Your task to perform on an android device: Open location settings Image 0: 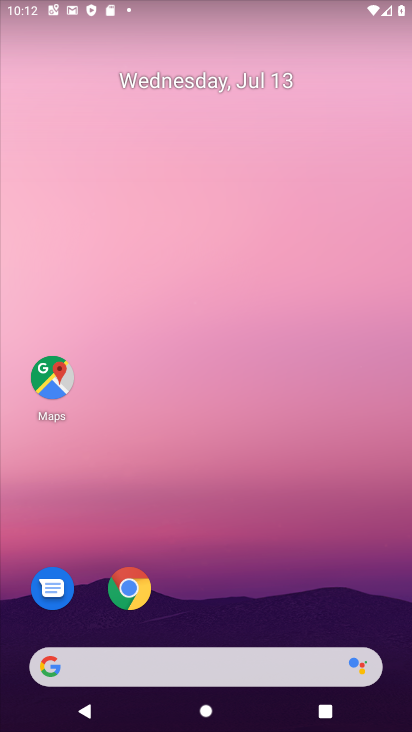
Step 0: drag from (215, 610) to (218, 214)
Your task to perform on an android device: Open location settings Image 1: 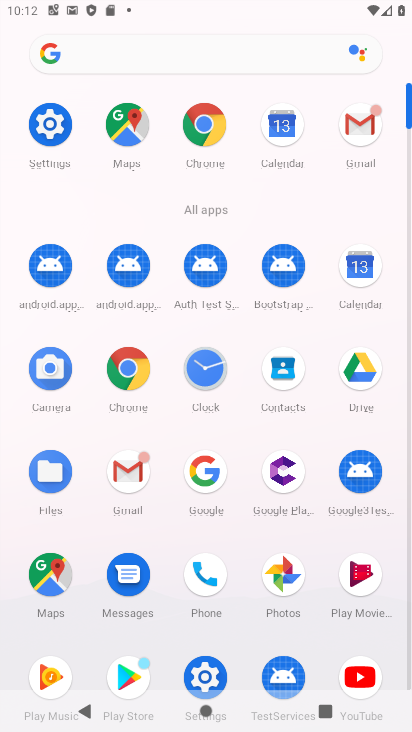
Step 1: click (47, 122)
Your task to perform on an android device: Open location settings Image 2: 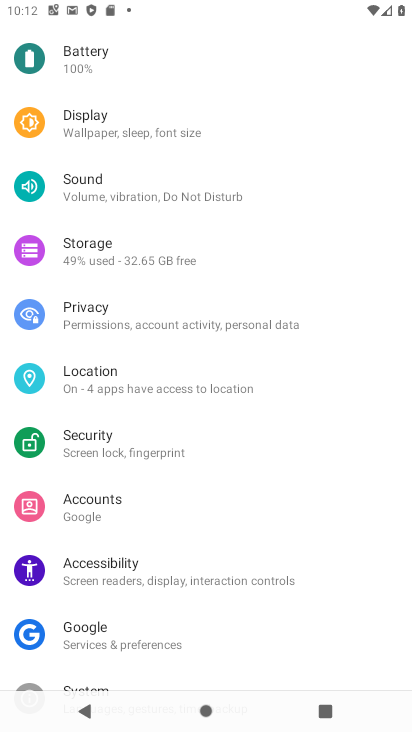
Step 2: click (84, 366)
Your task to perform on an android device: Open location settings Image 3: 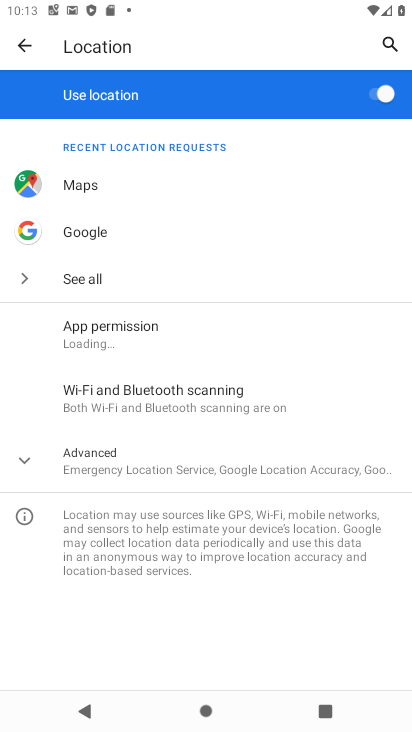
Step 3: click (154, 476)
Your task to perform on an android device: Open location settings Image 4: 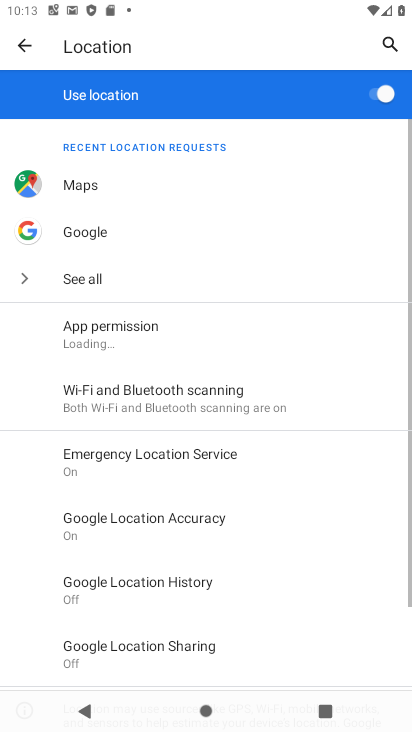
Step 4: task complete